Your task to perform on an android device: Do I have any events this weekend? Image 0: 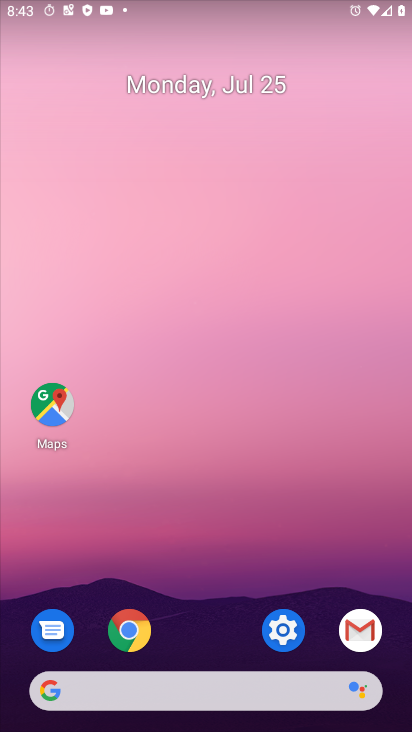
Step 0: press home button
Your task to perform on an android device: Do I have any events this weekend? Image 1: 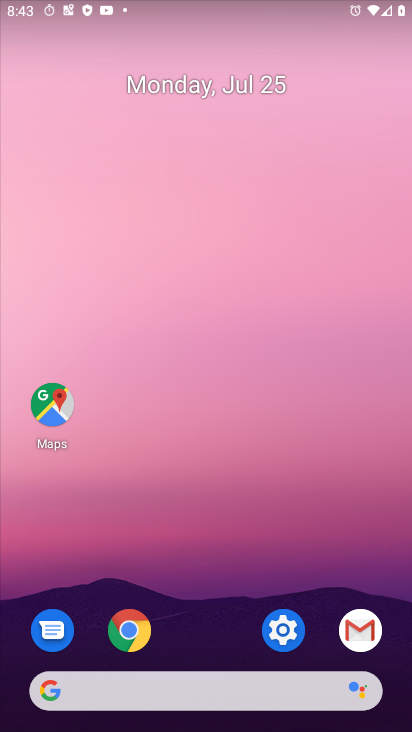
Step 1: drag from (224, 696) to (200, 165)
Your task to perform on an android device: Do I have any events this weekend? Image 2: 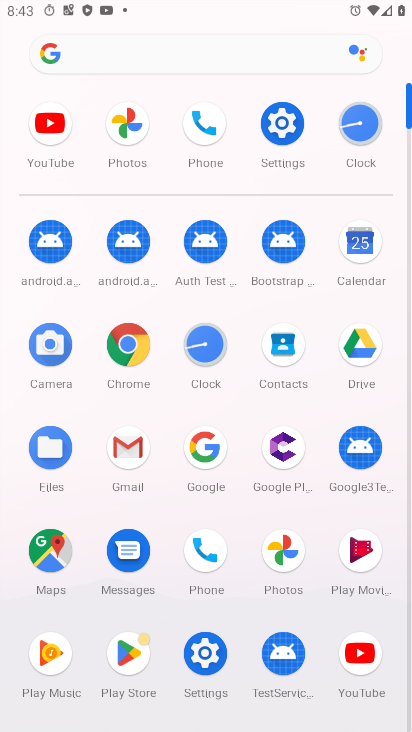
Step 2: click (357, 229)
Your task to perform on an android device: Do I have any events this weekend? Image 3: 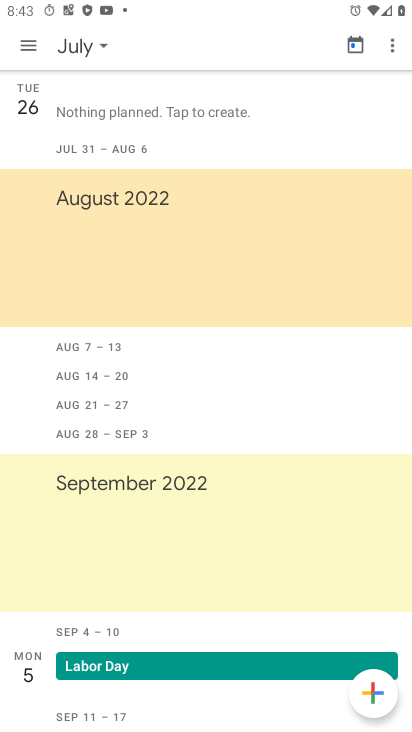
Step 3: click (18, 46)
Your task to perform on an android device: Do I have any events this weekend? Image 4: 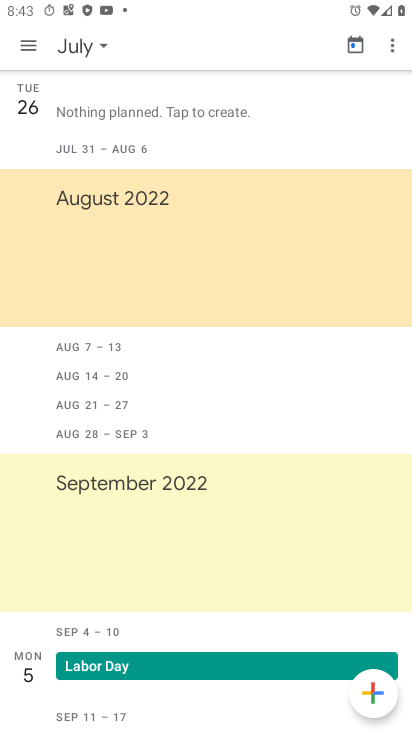
Step 4: click (32, 49)
Your task to perform on an android device: Do I have any events this weekend? Image 5: 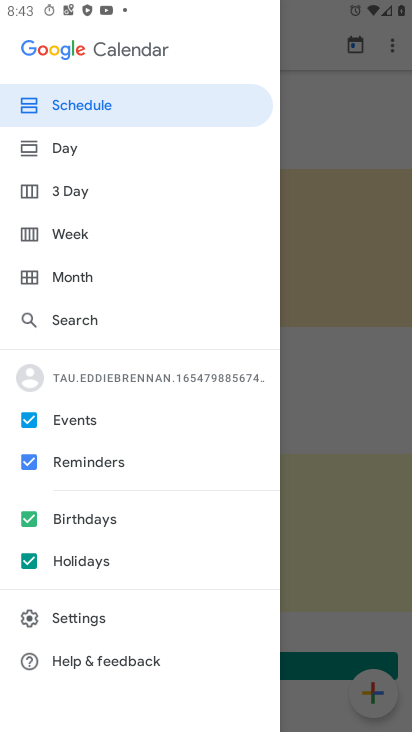
Step 5: click (104, 271)
Your task to perform on an android device: Do I have any events this weekend? Image 6: 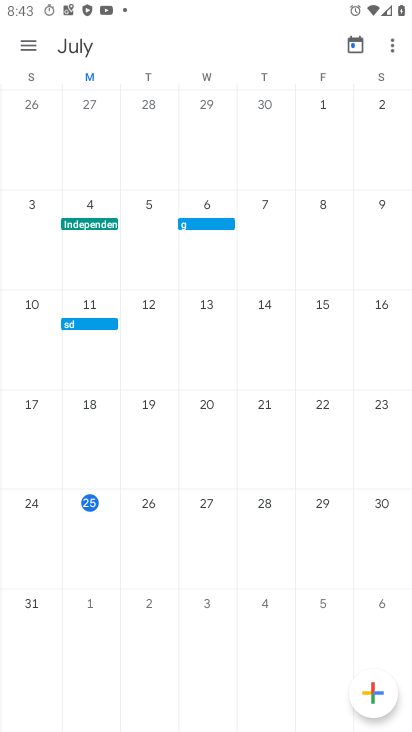
Step 6: click (92, 538)
Your task to perform on an android device: Do I have any events this weekend? Image 7: 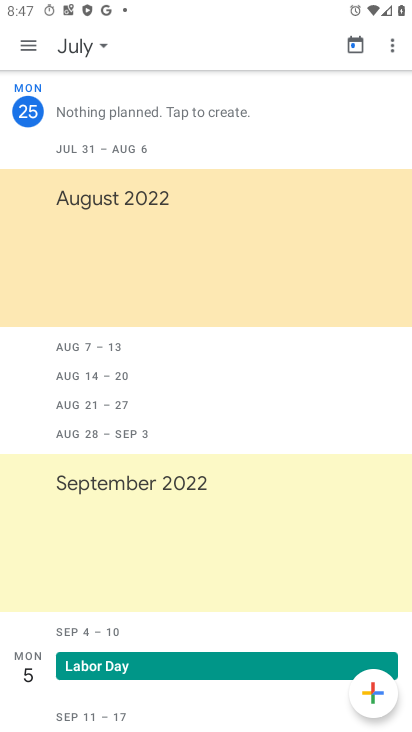
Step 7: task complete